Your task to perform on an android device: star an email in the gmail app Image 0: 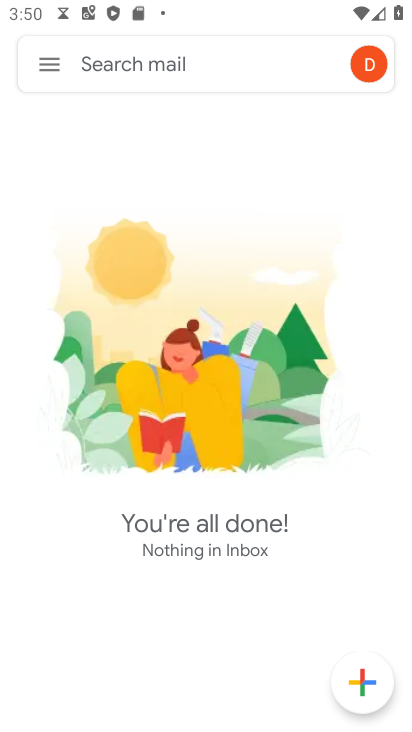
Step 0: task impossible